Your task to perform on an android device: open device folders in google photos Image 0: 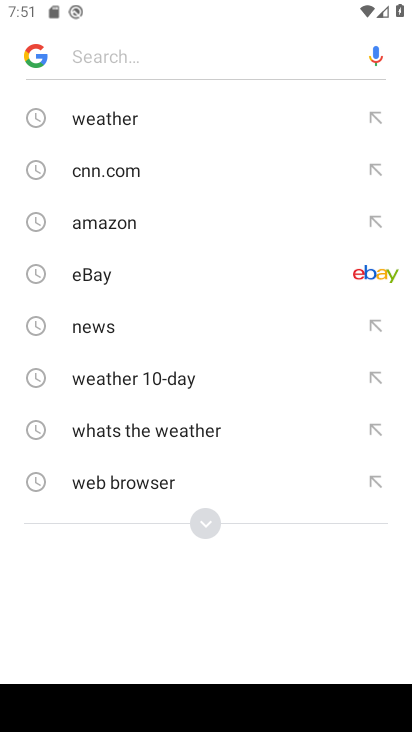
Step 0: press home button
Your task to perform on an android device: open device folders in google photos Image 1: 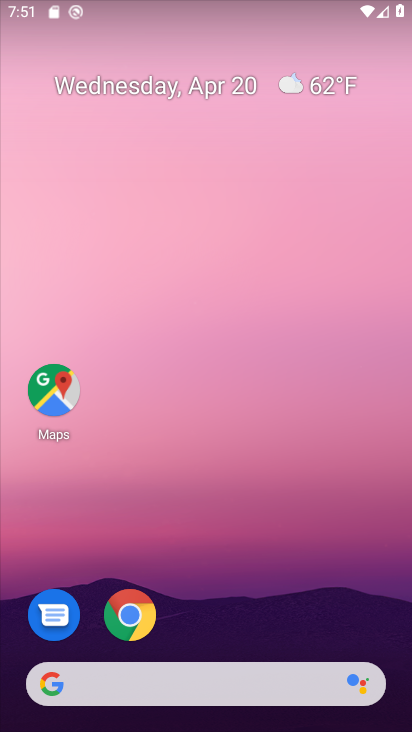
Step 1: drag from (188, 600) to (244, 11)
Your task to perform on an android device: open device folders in google photos Image 2: 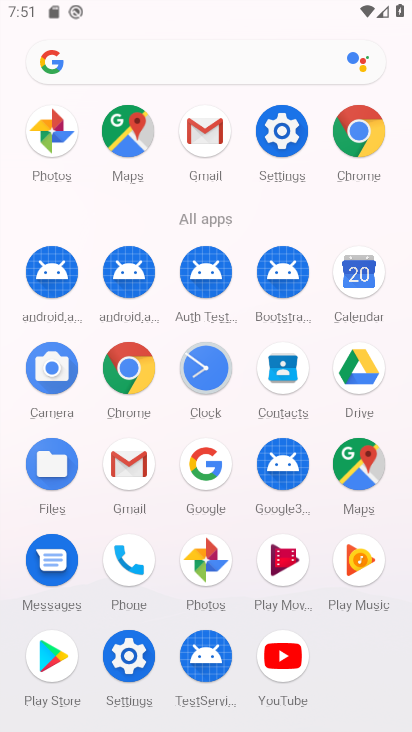
Step 2: click (201, 578)
Your task to perform on an android device: open device folders in google photos Image 3: 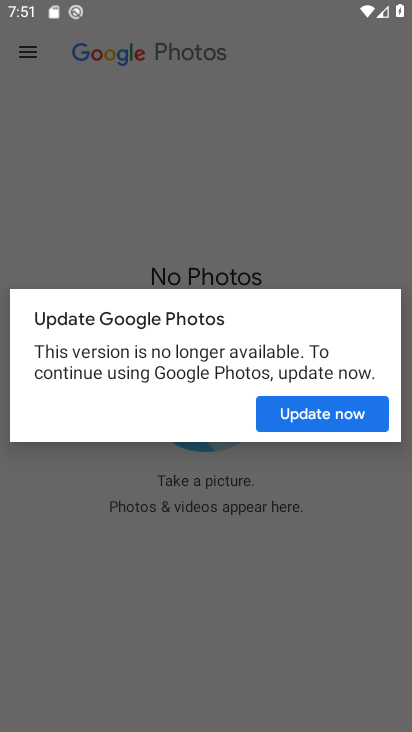
Step 3: click (314, 411)
Your task to perform on an android device: open device folders in google photos Image 4: 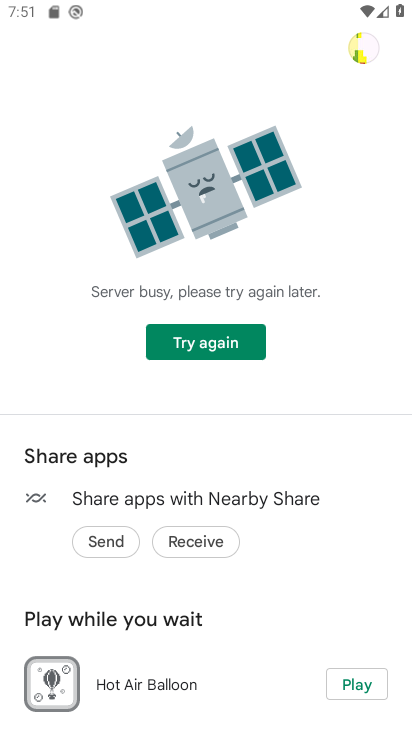
Step 4: press back button
Your task to perform on an android device: open device folders in google photos Image 5: 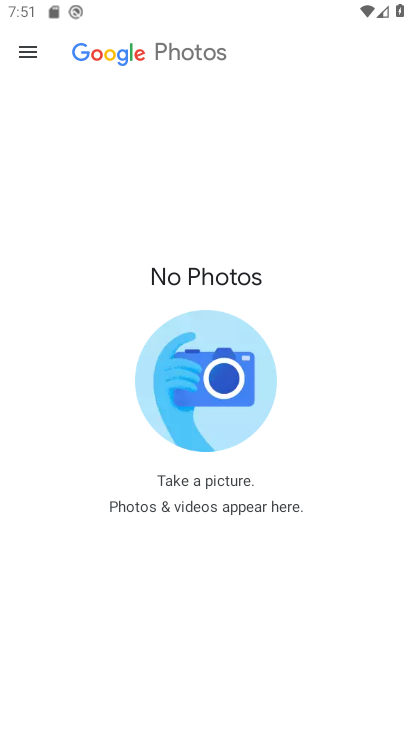
Step 5: click (25, 49)
Your task to perform on an android device: open device folders in google photos Image 6: 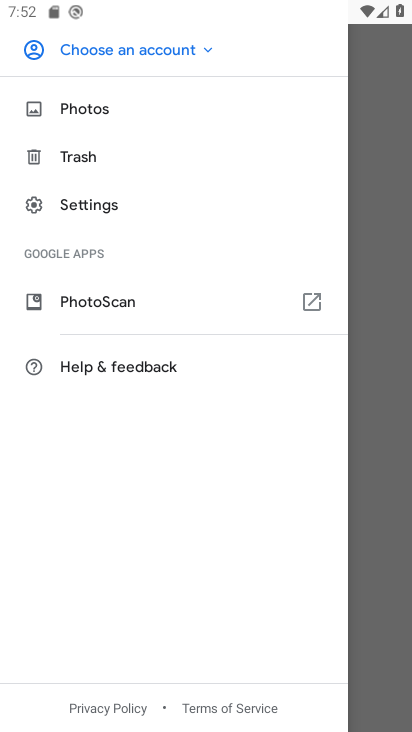
Step 6: click (364, 218)
Your task to perform on an android device: open device folders in google photos Image 7: 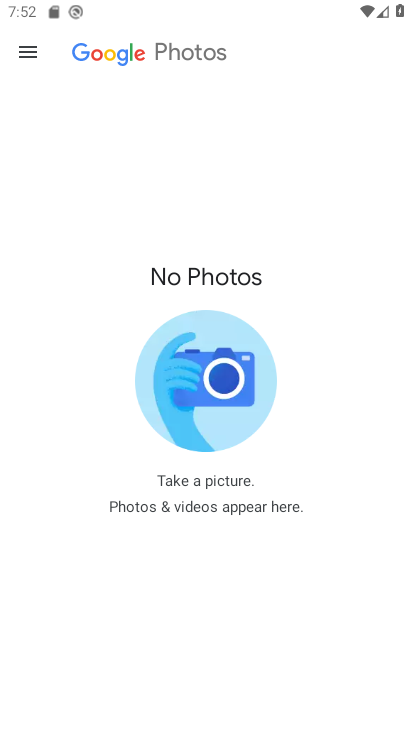
Step 7: drag from (227, 226) to (126, 624)
Your task to perform on an android device: open device folders in google photos Image 8: 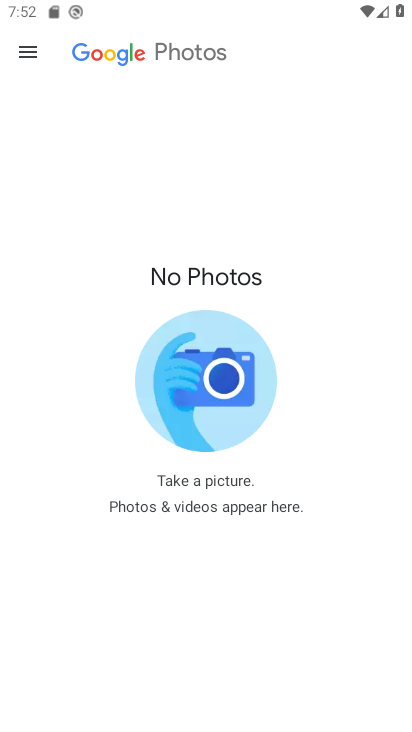
Step 8: drag from (152, 289) to (121, 462)
Your task to perform on an android device: open device folders in google photos Image 9: 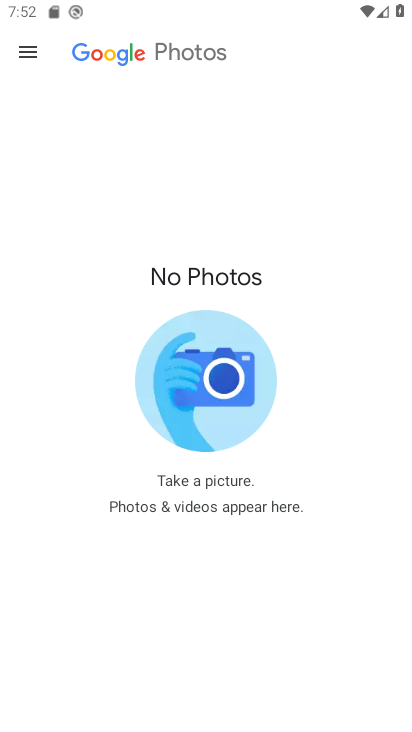
Step 9: click (34, 50)
Your task to perform on an android device: open device folders in google photos Image 10: 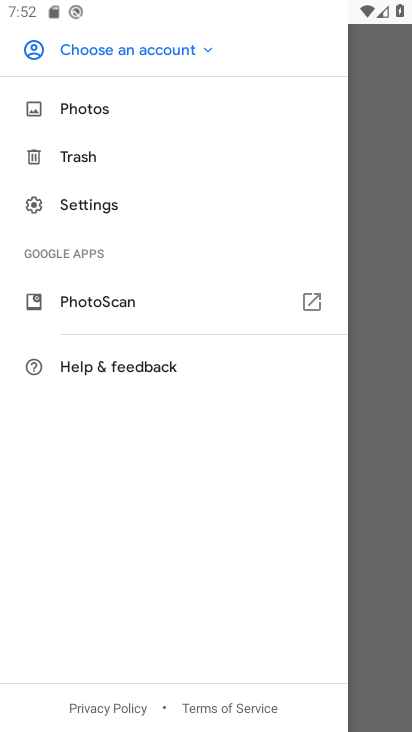
Step 10: click (95, 113)
Your task to perform on an android device: open device folders in google photos Image 11: 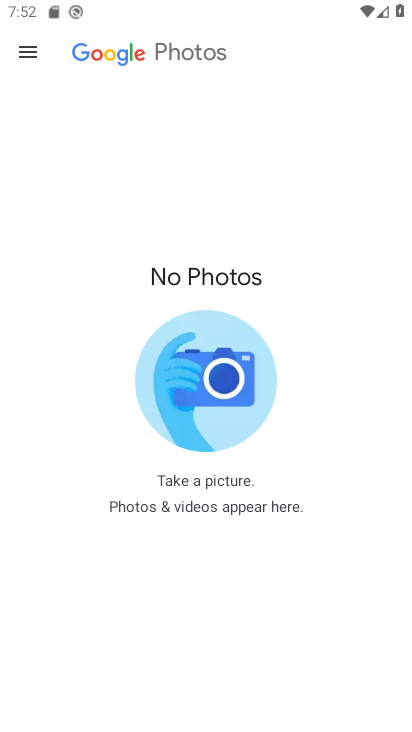
Step 11: click (26, 44)
Your task to perform on an android device: open device folders in google photos Image 12: 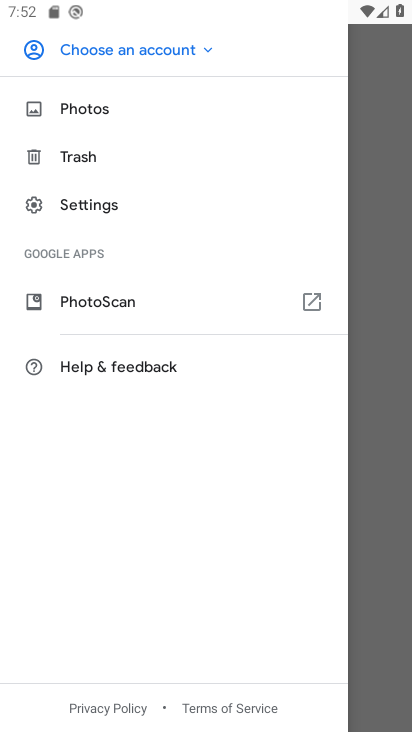
Step 12: task complete